Your task to perform on an android device: change text size in settings app Image 0: 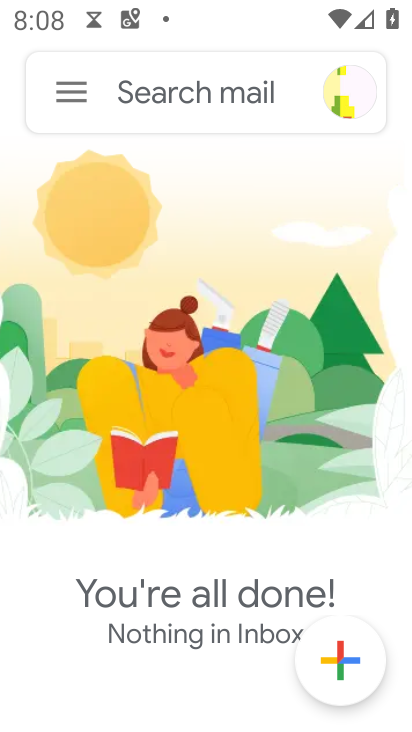
Step 0: press home button
Your task to perform on an android device: change text size in settings app Image 1: 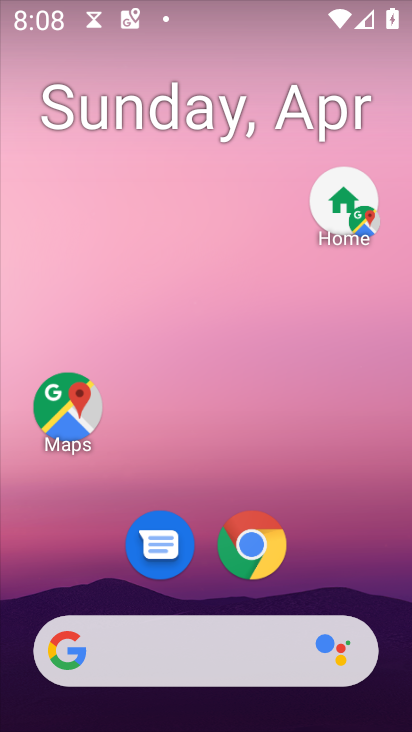
Step 1: drag from (186, 584) to (242, 289)
Your task to perform on an android device: change text size in settings app Image 2: 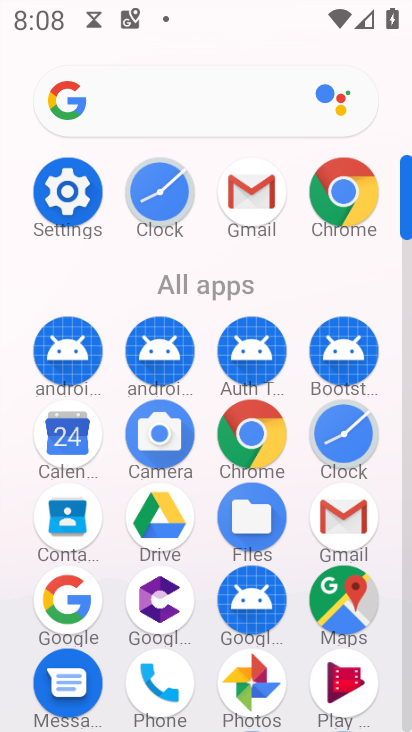
Step 2: click (56, 192)
Your task to perform on an android device: change text size in settings app Image 3: 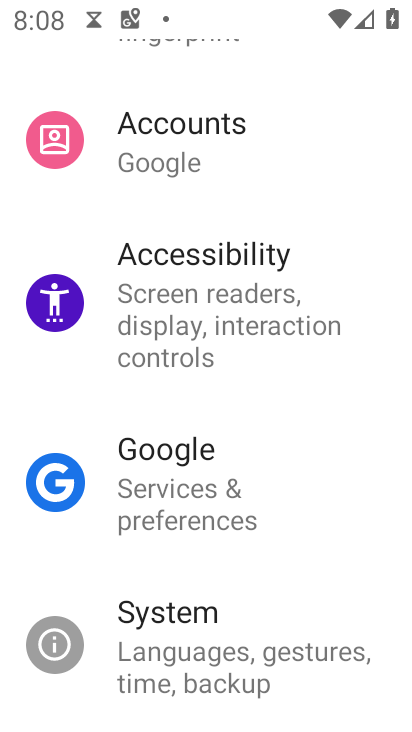
Step 3: click (168, 275)
Your task to perform on an android device: change text size in settings app Image 4: 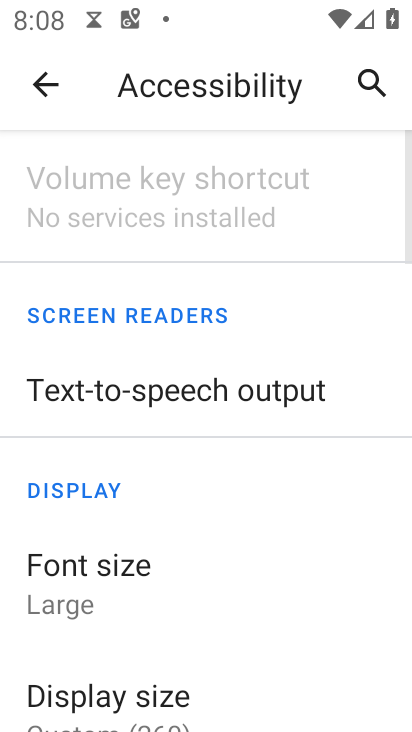
Step 4: click (116, 583)
Your task to perform on an android device: change text size in settings app Image 5: 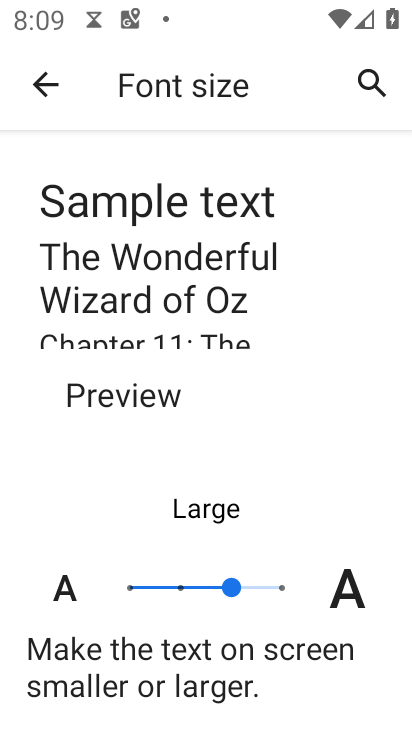
Step 5: task complete